Your task to perform on an android device: Go to sound settings Image 0: 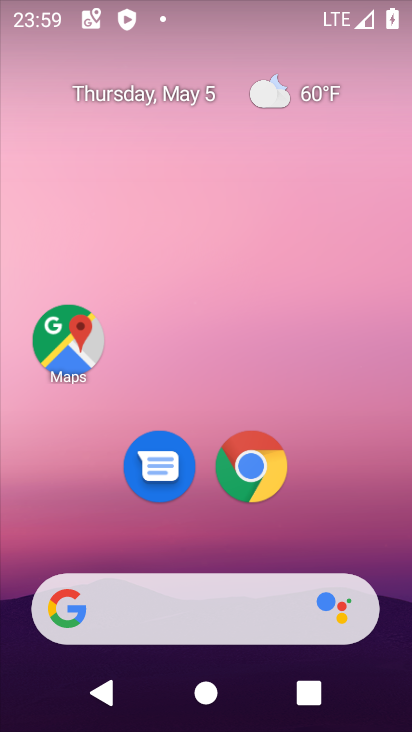
Step 0: drag from (237, 525) to (238, 184)
Your task to perform on an android device: Go to sound settings Image 1: 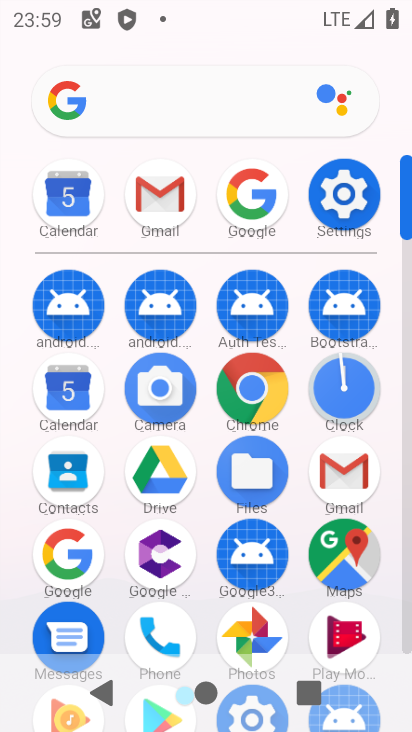
Step 1: click (332, 199)
Your task to perform on an android device: Go to sound settings Image 2: 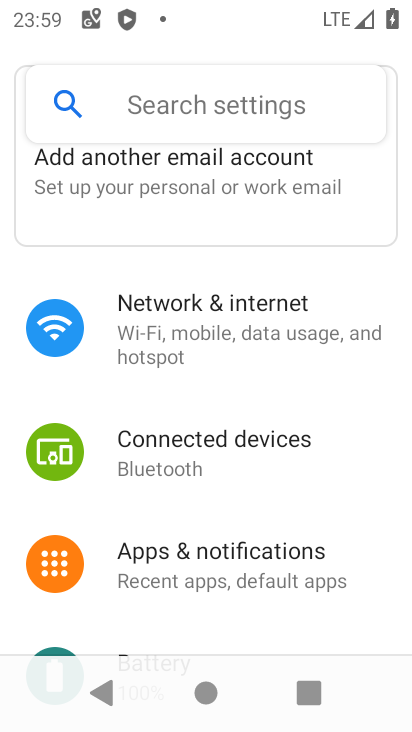
Step 2: drag from (198, 604) to (207, 288)
Your task to perform on an android device: Go to sound settings Image 3: 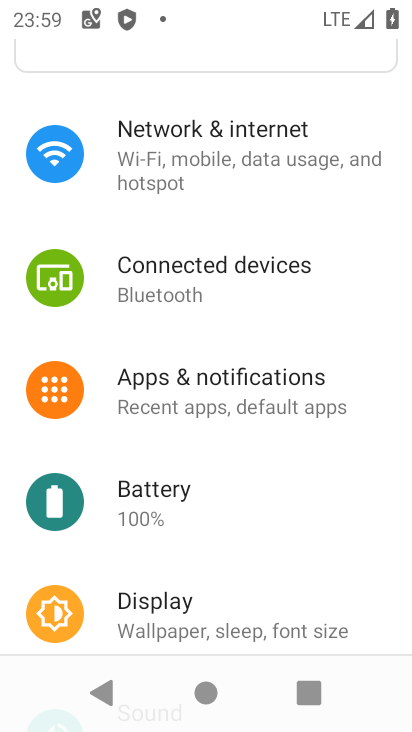
Step 3: drag from (213, 588) to (237, 252)
Your task to perform on an android device: Go to sound settings Image 4: 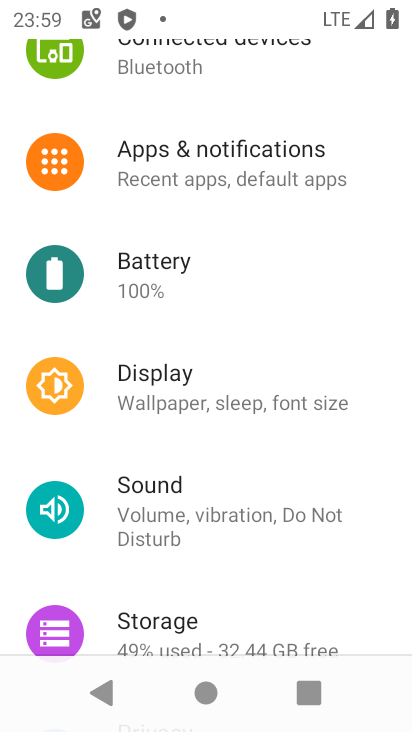
Step 4: click (204, 505)
Your task to perform on an android device: Go to sound settings Image 5: 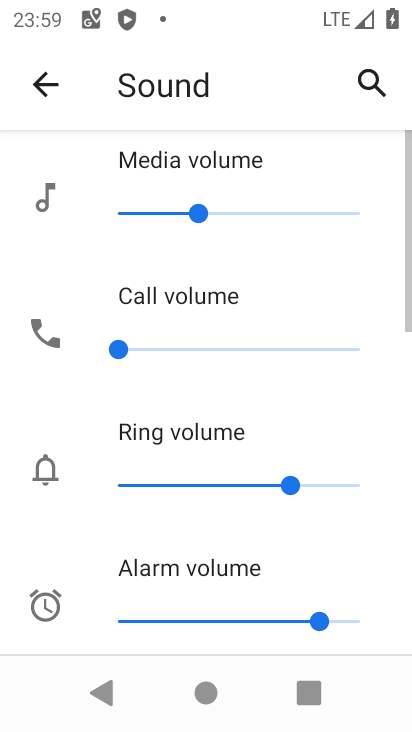
Step 5: drag from (208, 603) to (231, 182)
Your task to perform on an android device: Go to sound settings Image 6: 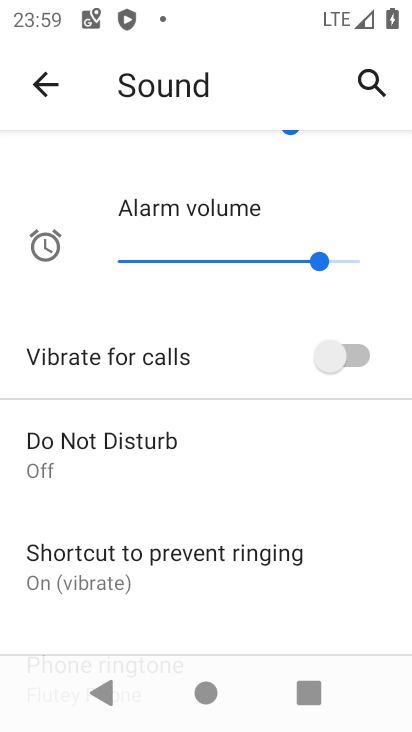
Step 6: drag from (224, 542) to (245, 193)
Your task to perform on an android device: Go to sound settings Image 7: 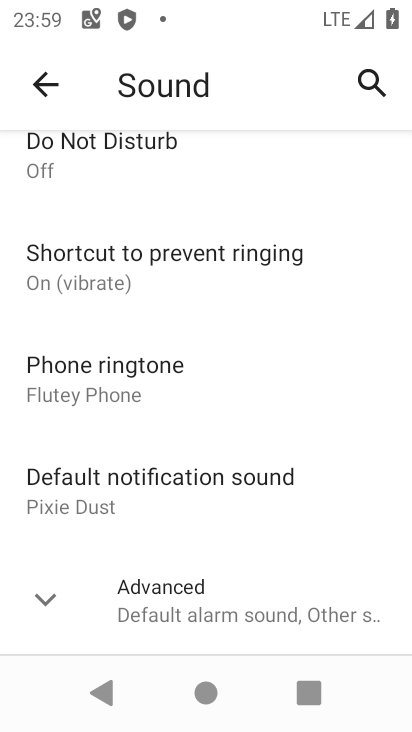
Step 7: click (193, 589)
Your task to perform on an android device: Go to sound settings Image 8: 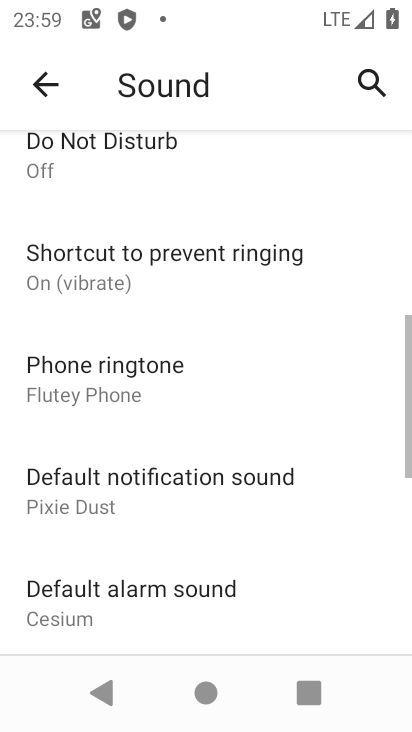
Step 8: task complete